Your task to perform on an android device: turn on translation in the chrome app Image 0: 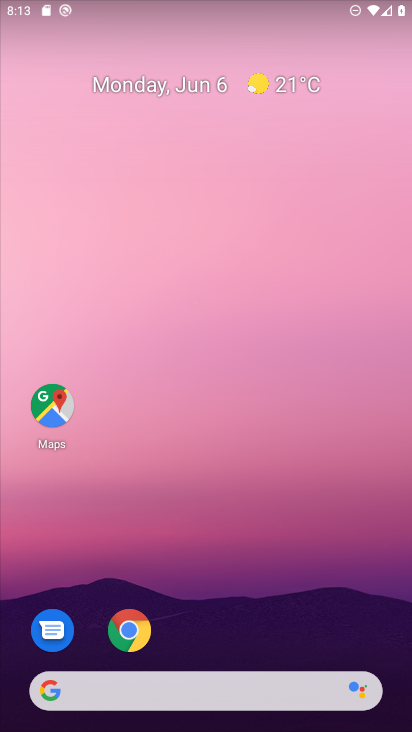
Step 0: click (128, 637)
Your task to perform on an android device: turn on translation in the chrome app Image 1: 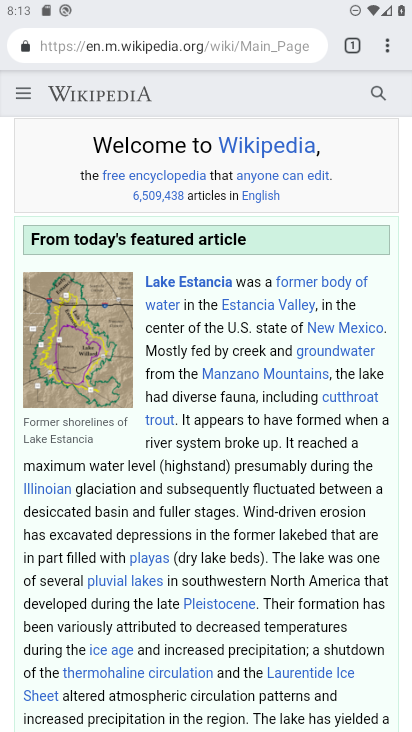
Step 1: drag from (392, 37) to (250, 511)
Your task to perform on an android device: turn on translation in the chrome app Image 2: 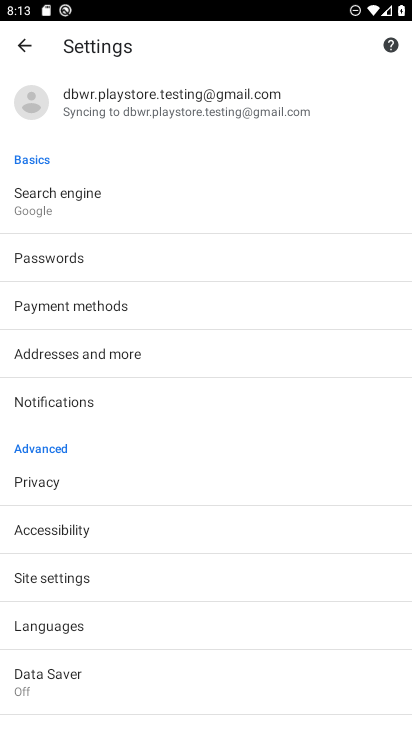
Step 2: drag from (223, 607) to (330, 217)
Your task to perform on an android device: turn on translation in the chrome app Image 3: 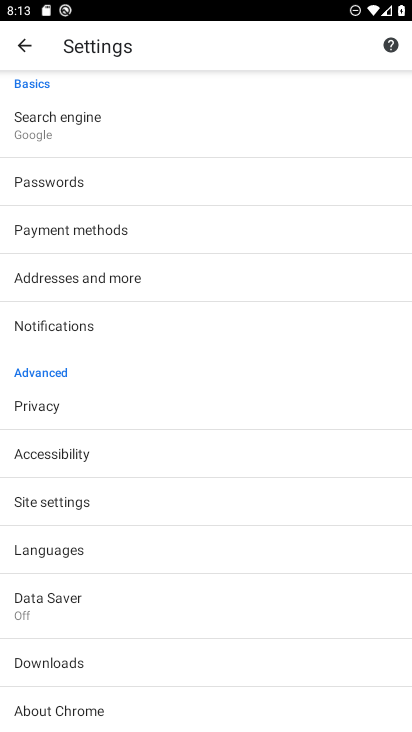
Step 3: click (99, 542)
Your task to perform on an android device: turn on translation in the chrome app Image 4: 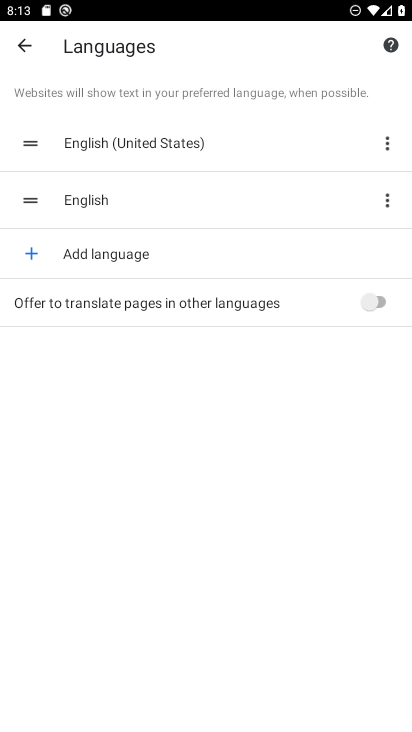
Step 4: click (382, 291)
Your task to perform on an android device: turn on translation in the chrome app Image 5: 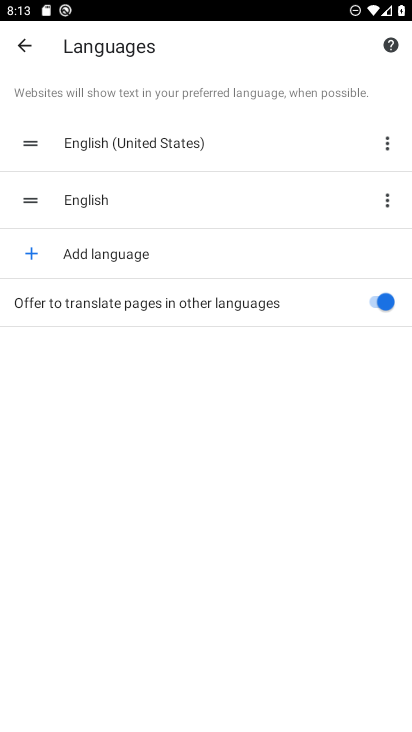
Step 5: task complete